Your task to perform on an android device: change alarm snooze length Image 0: 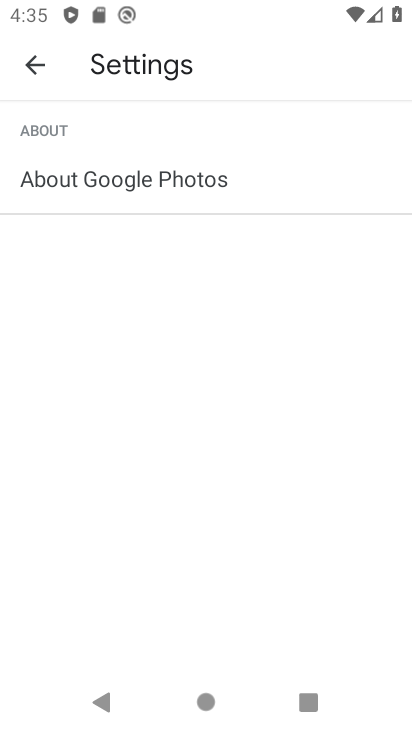
Step 0: press home button
Your task to perform on an android device: change alarm snooze length Image 1: 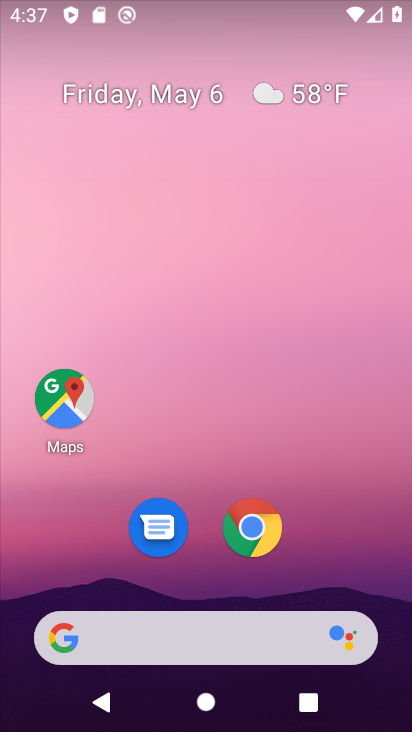
Step 1: drag from (239, 333) to (239, 220)
Your task to perform on an android device: change alarm snooze length Image 2: 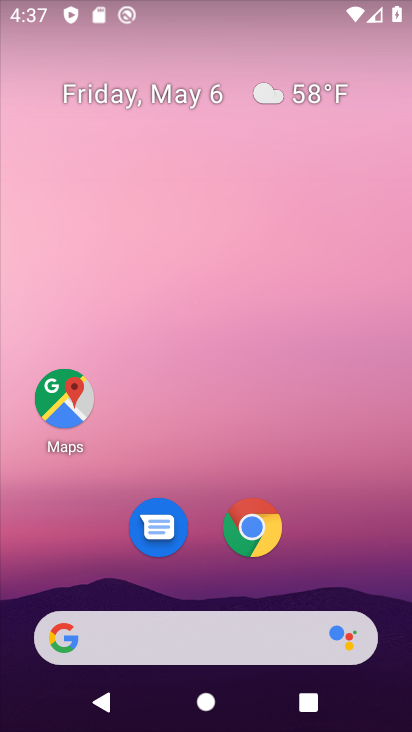
Step 2: drag from (231, 720) to (227, 107)
Your task to perform on an android device: change alarm snooze length Image 3: 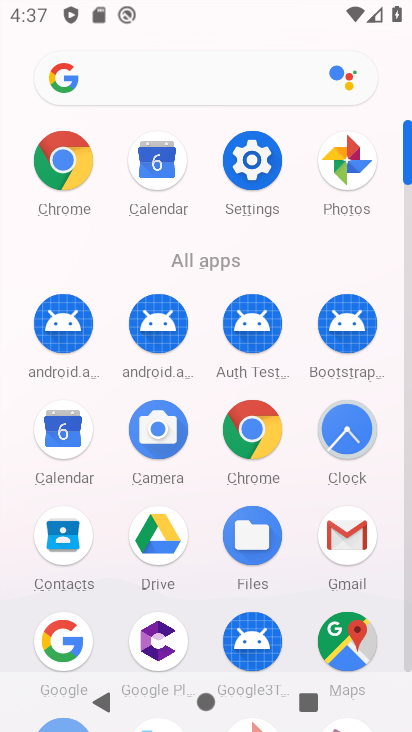
Step 3: click (339, 426)
Your task to perform on an android device: change alarm snooze length Image 4: 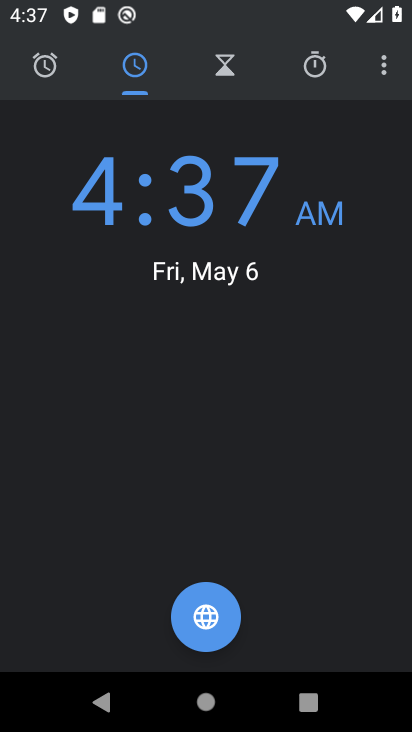
Step 4: click (386, 67)
Your task to perform on an android device: change alarm snooze length Image 5: 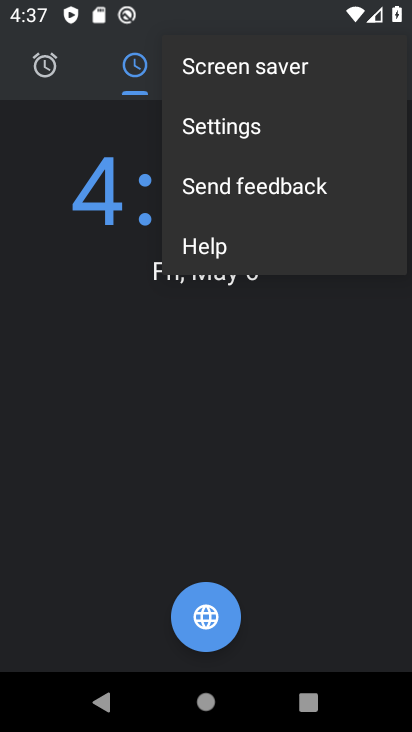
Step 5: click (203, 127)
Your task to perform on an android device: change alarm snooze length Image 6: 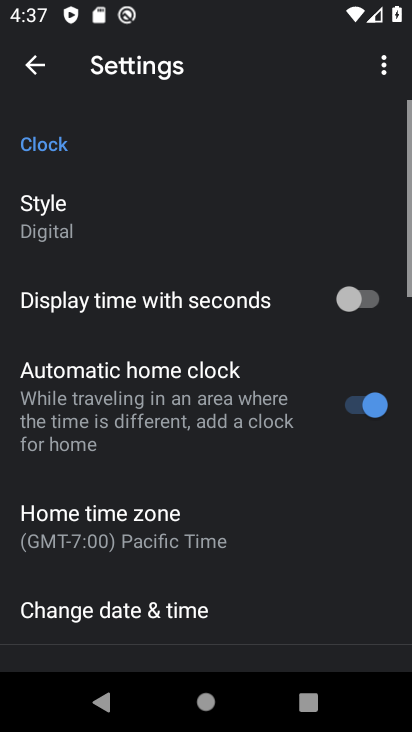
Step 6: drag from (144, 581) to (140, 213)
Your task to perform on an android device: change alarm snooze length Image 7: 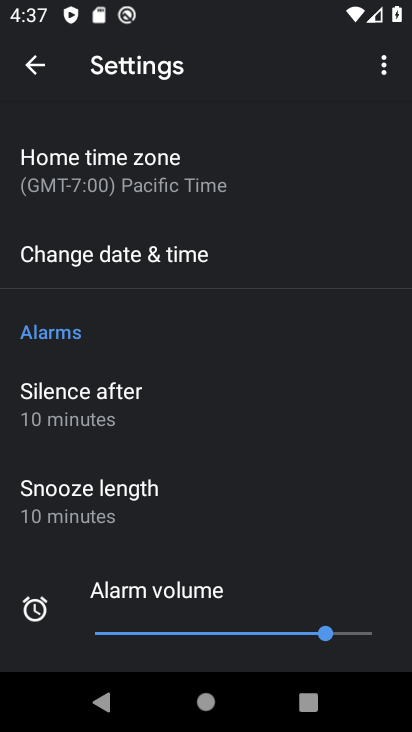
Step 7: click (102, 495)
Your task to perform on an android device: change alarm snooze length Image 8: 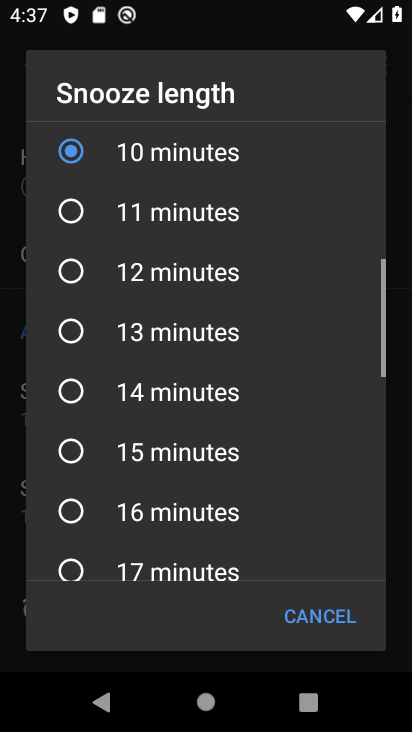
Step 8: click (130, 218)
Your task to perform on an android device: change alarm snooze length Image 9: 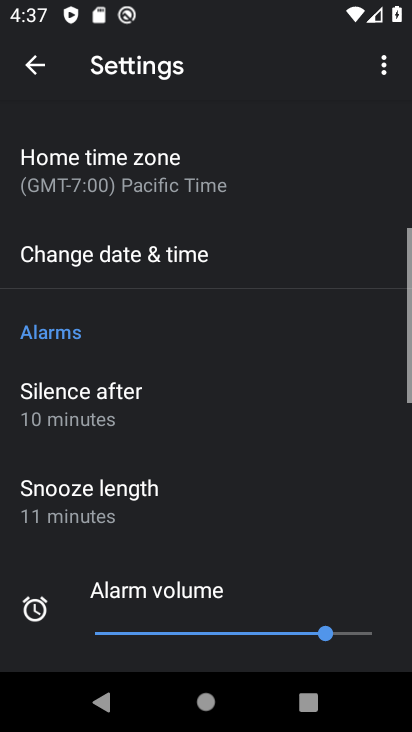
Step 9: task complete